Your task to perform on an android device: turn pop-ups off in chrome Image 0: 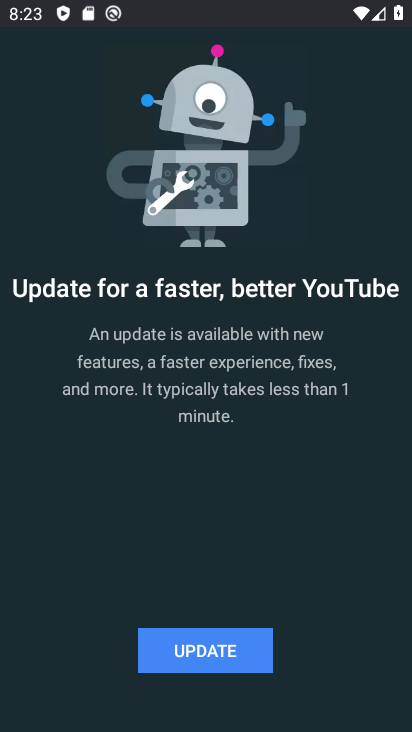
Step 0: press home button
Your task to perform on an android device: turn pop-ups off in chrome Image 1: 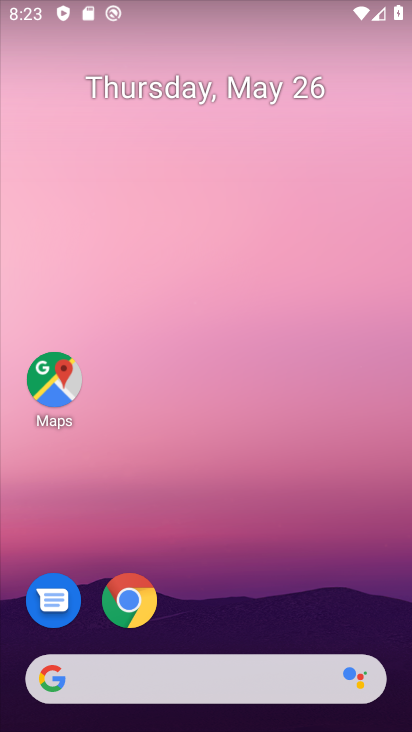
Step 1: click (132, 588)
Your task to perform on an android device: turn pop-ups off in chrome Image 2: 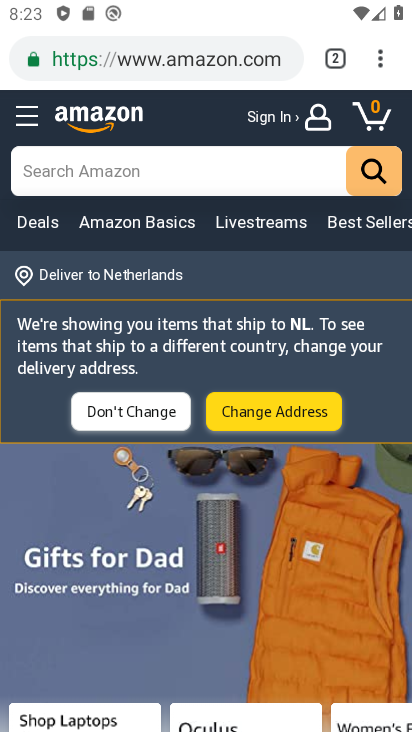
Step 2: click (400, 54)
Your task to perform on an android device: turn pop-ups off in chrome Image 3: 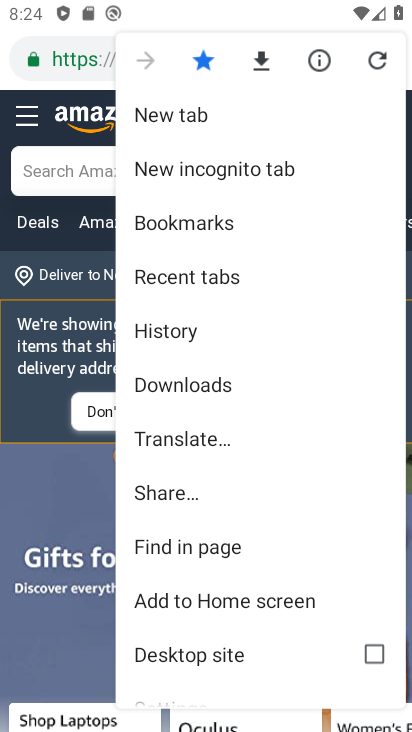
Step 3: drag from (204, 625) to (255, 248)
Your task to perform on an android device: turn pop-ups off in chrome Image 4: 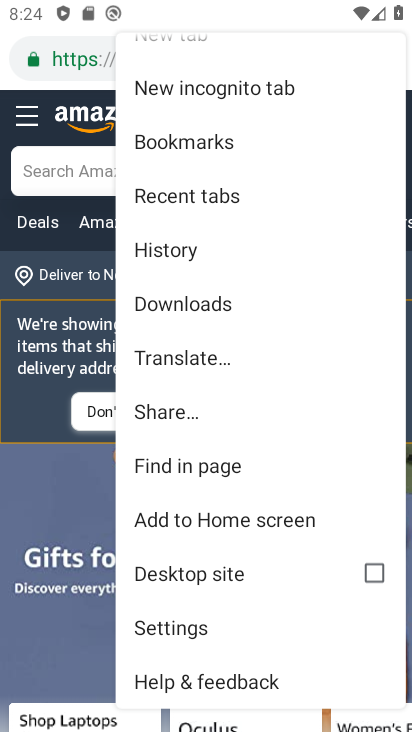
Step 4: click (176, 632)
Your task to perform on an android device: turn pop-ups off in chrome Image 5: 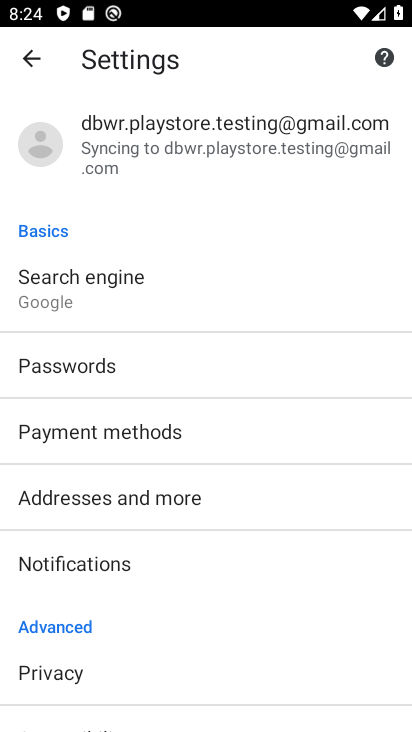
Step 5: drag from (159, 641) to (193, 135)
Your task to perform on an android device: turn pop-ups off in chrome Image 6: 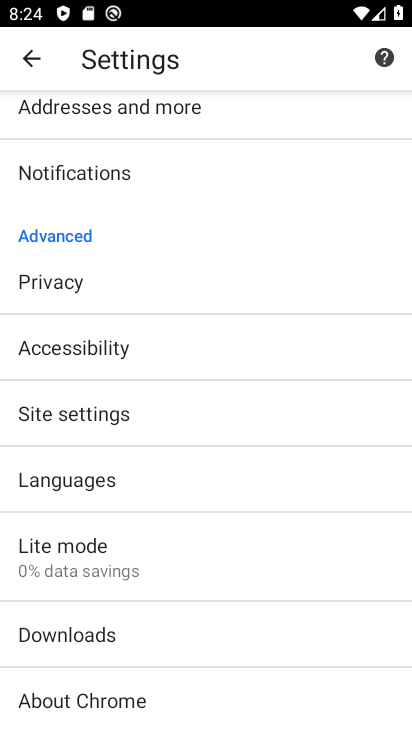
Step 6: click (173, 416)
Your task to perform on an android device: turn pop-ups off in chrome Image 7: 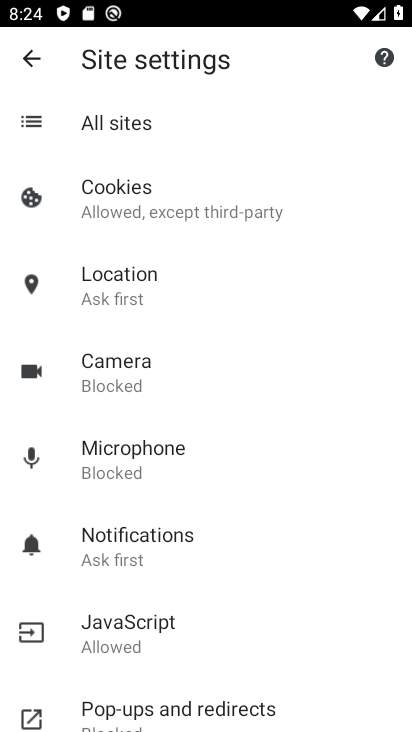
Step 7: click (220, 714)
Your task to perform on an android device: turn pop-ups off in chrome Image 8: 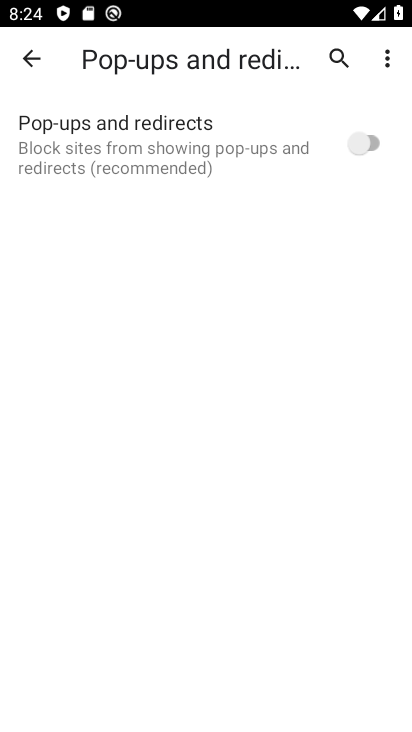
Step 8: task complete